Your task to perform on an android device: Do I have any events this weekend? Image 0: 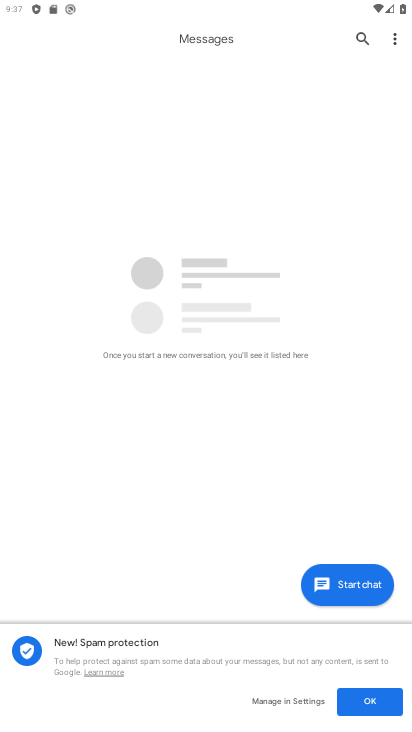
Step 0: press home button
Your task to perform on an android device: Do I have any events this weekend? Image 1: 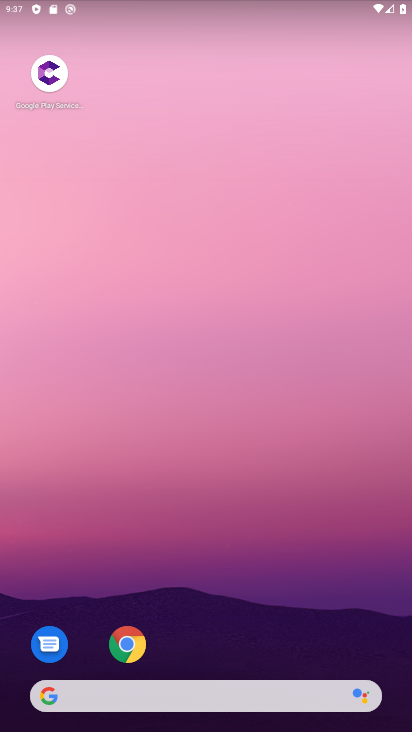
Step 1: drag from (232, 569) to (0, 32)
Your task to perform on an android device: Do I have any events this weekend? Image 2: 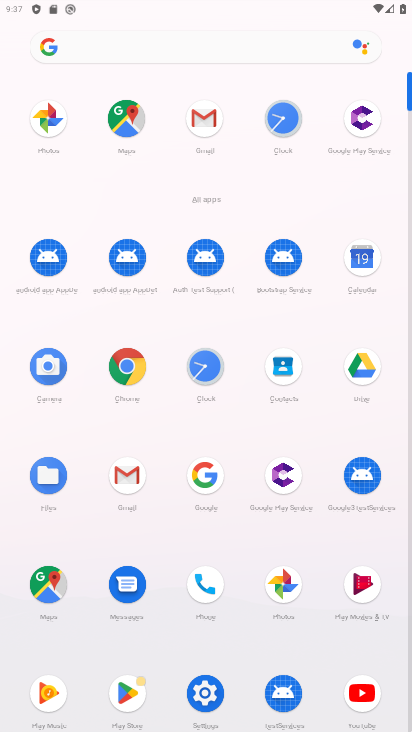
Step 2: click (368, 259)
Your task to perform on an android device: Do I have any events this weekend? Image 3: 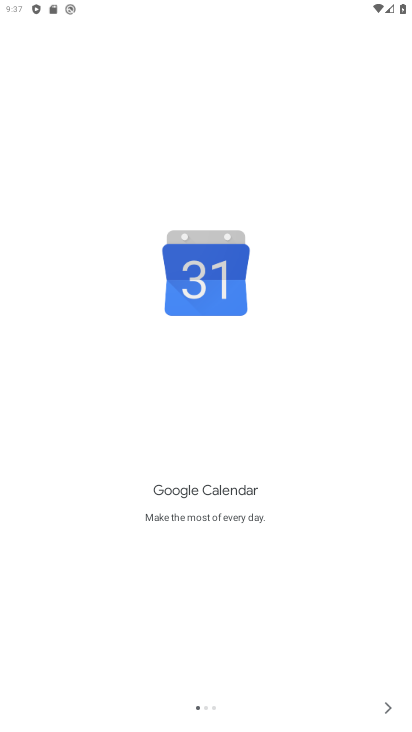
Step 3: click (391, 703)
Your task to perform on an android device: Do I have any events this weekend? Image 4: 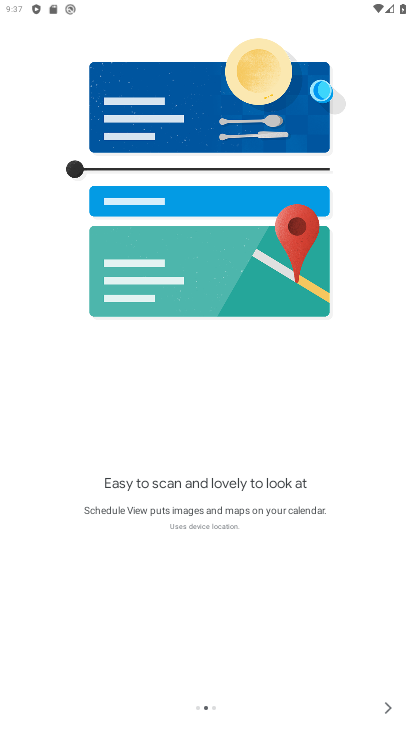
Step 4: click (387, 707)
Your task to perform on an android device: Do I have any events this weekend? Image 5: 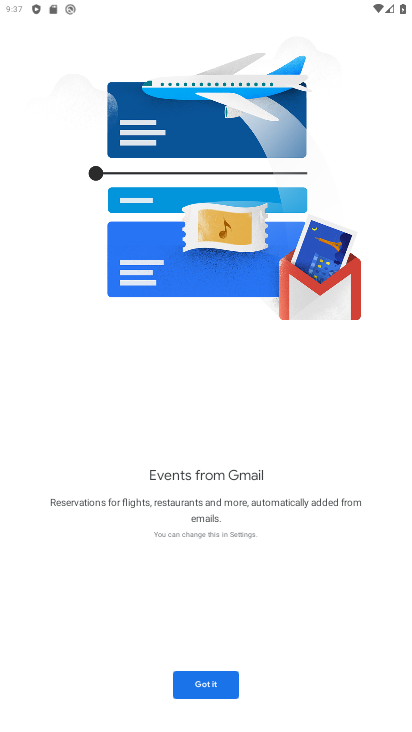
Step 5: click (220, 691)
Your task to perform on an android device: Do I have any events this weekend? Image 6: 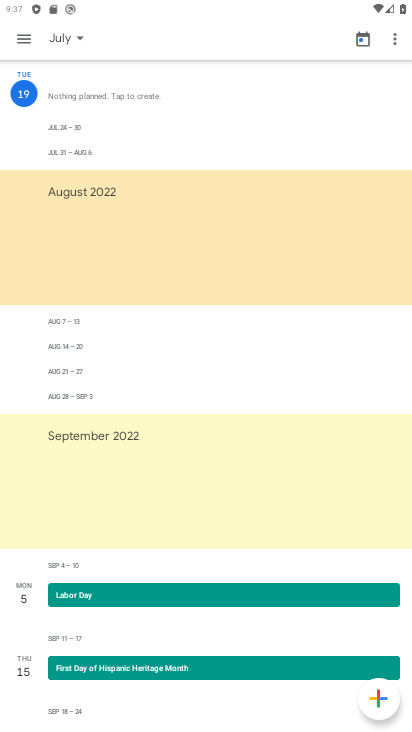
Step 6: task complete